Your task to perform on an android device: Open location settings Image 0: 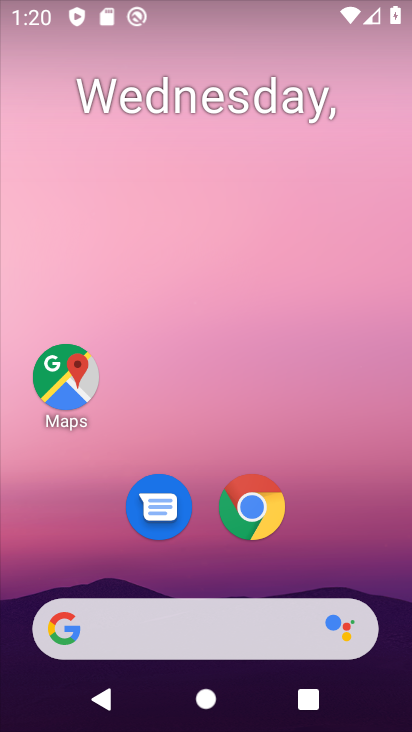
Step 0: drag from (368, 558) to (372, 134)
Your task to perform on an android device: Open location settings Image 1: 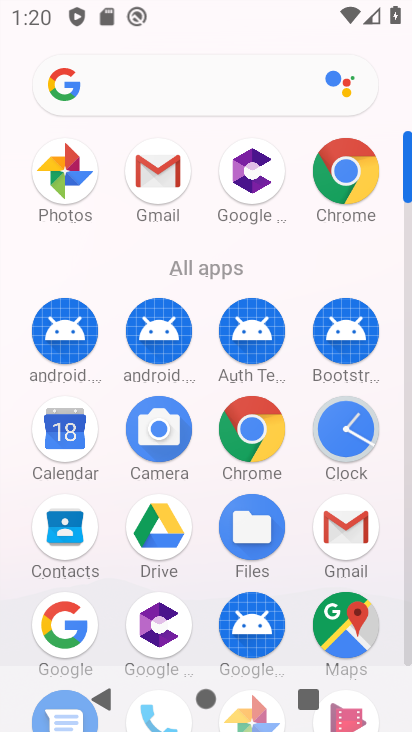
Step 1: drag from (286, 666) to (322, 311)
Your task to perform on an android device: Open location settings Image 2: 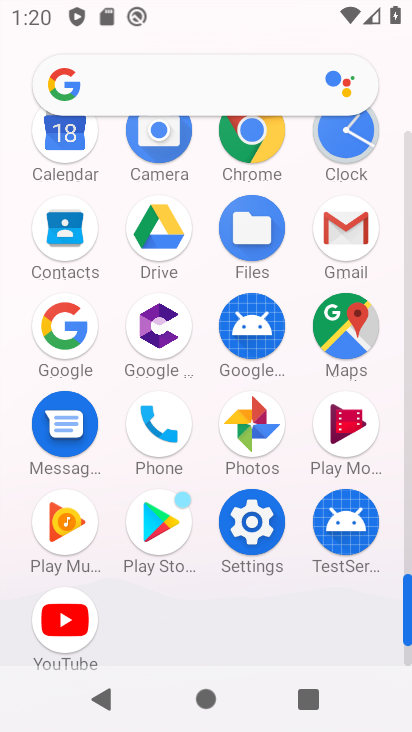
Step 2: click (256, 533)
Your task to perform on an android device: Open location settings Image 3: 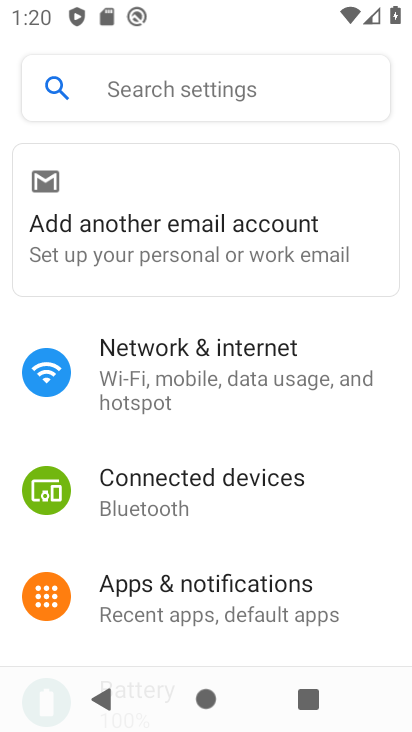
Step 3: drag from (234, 606) to (245, 236)
Your task to perform on an android device: Open location settings Image 4: 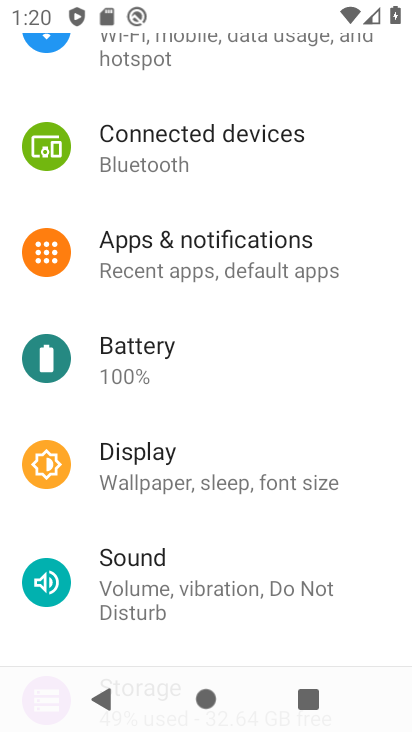
Step 4: drag from (234, 547) to (242, 262)
Your task to perform on an android device: Open location settings Image 5: 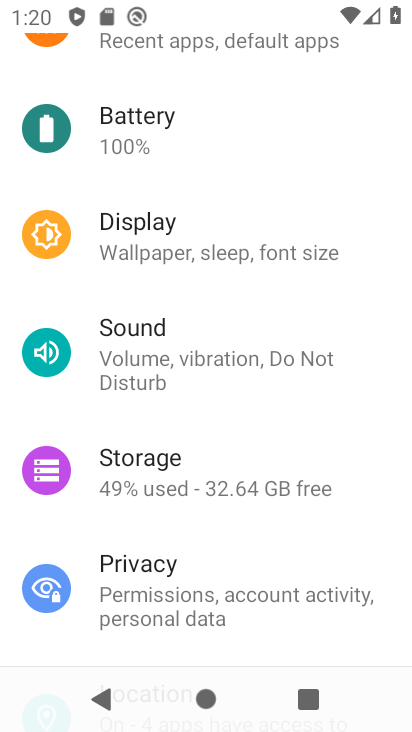
Step 5: drag from (258, 520) to (273, 216)
Your task to perform on an android device: Open location settings Image 6: 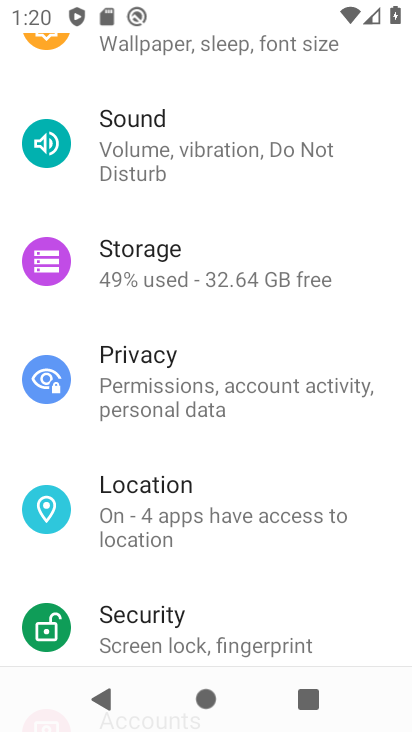
Step 6: click (265, 499)
Your task to perform on an android device: Open location settings Image 7: 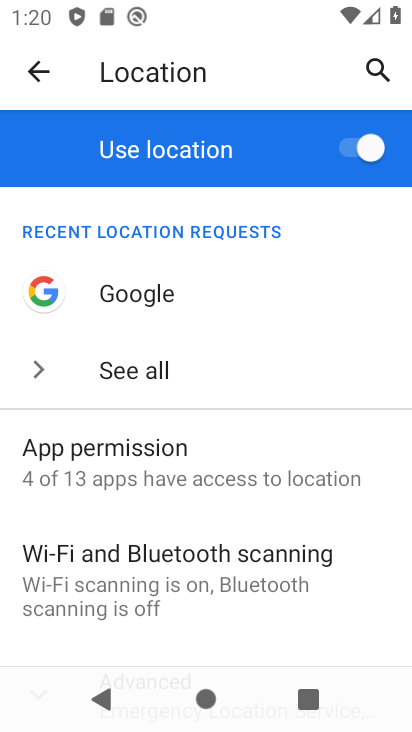
Step 7: drag from (284, 579) to (280, 262)
Your task to perform on an android device: Open location settings Image 8: 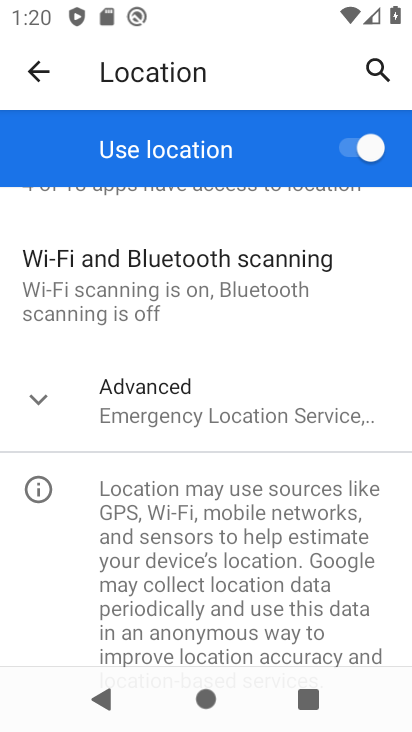
Step 8: click (238, 417)
Your task to perform on an android device: Open location settings Image 9: 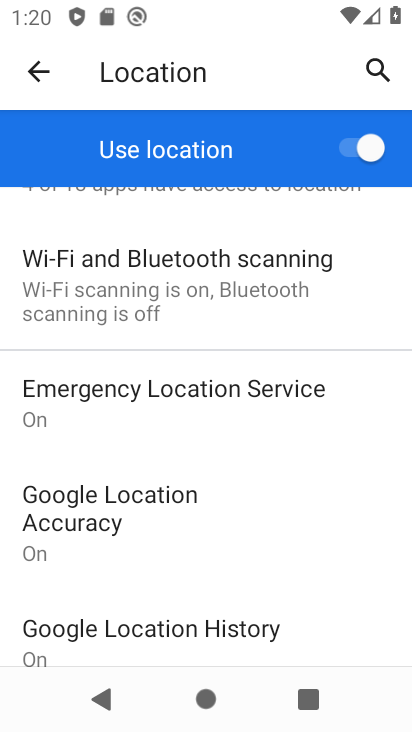
Step 9: task complete